Your task to perform on an android device: toggle notification dots Image 0: 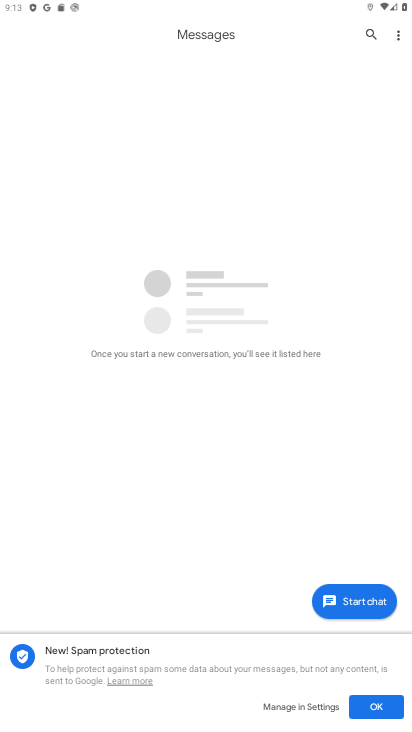
Step 0: press home button
Your task to perform on an android device: toggle notification dots Image 1: 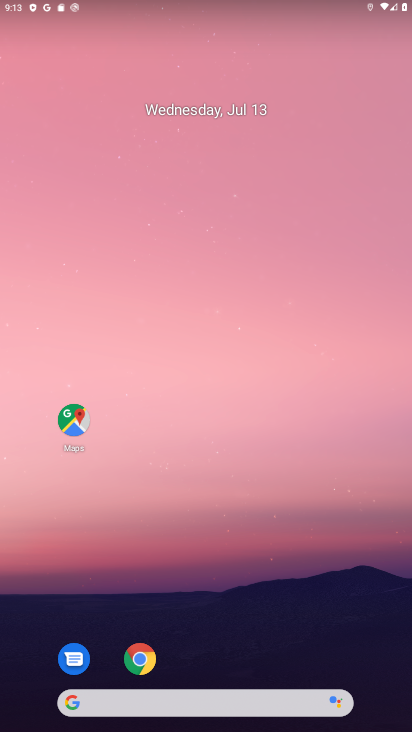
Step 1: click (128, 239)
Your task to perform on an android device: toggle notification dots Image 2: 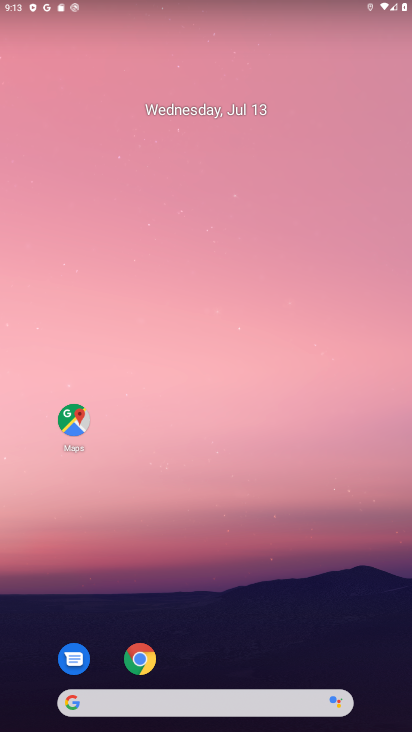
Step 2: drag from (246, 633) to (188, 375)
Your task to perform on an android device: toggle notification dots Image 3: 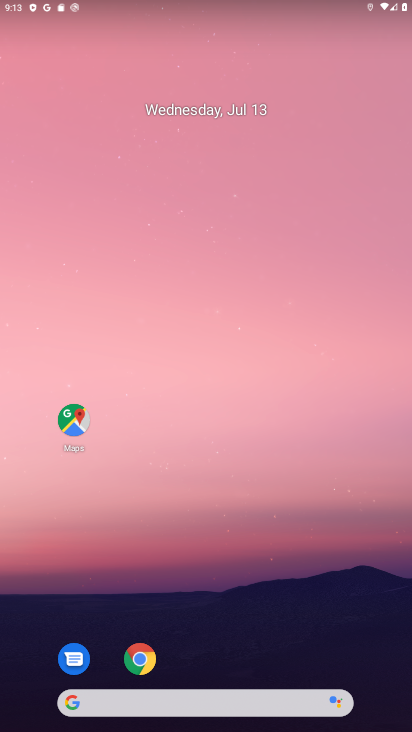
Step 3: drag from (242, 646) to (283, 0)
Your task to perform on an android device: toggle notification dots Image 4: 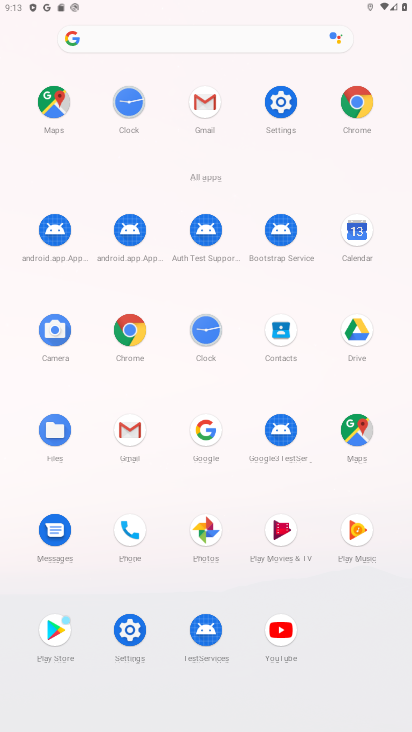
Step 4: click (282, 95)
Your task to perform on an android device: toggle notification dots Image 5: 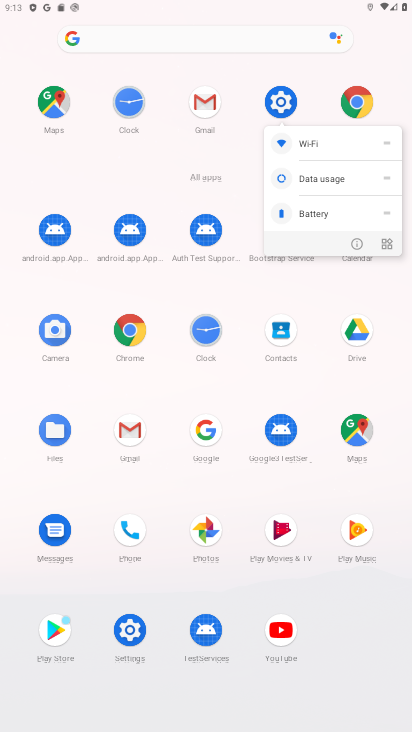
Step 5: click (277, 102)
Your task to perform on an android device: toggle notification dots Image 6: 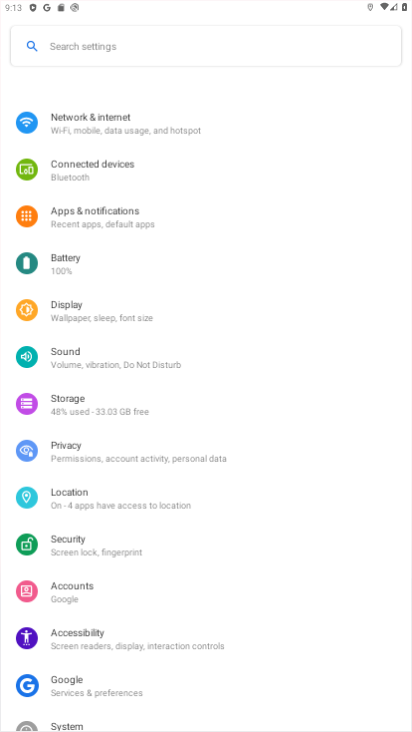
Step 6: click (277, 102)
Your task to perform on an android device: toggle notification dots Image 7: 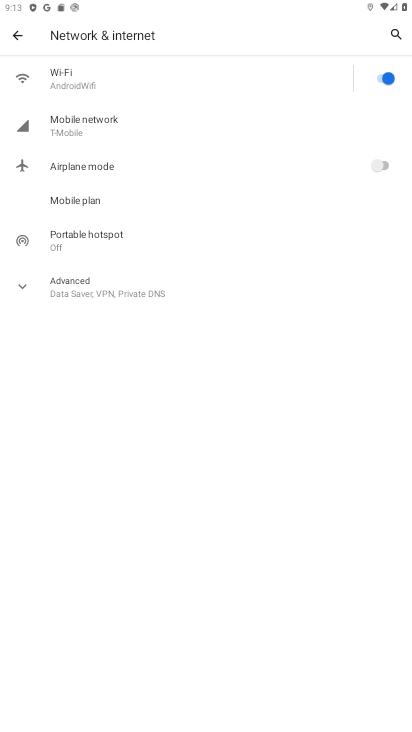
Step 7: click (23, 39)
Your task to perform on an android device: toggle notification dots Image 8: 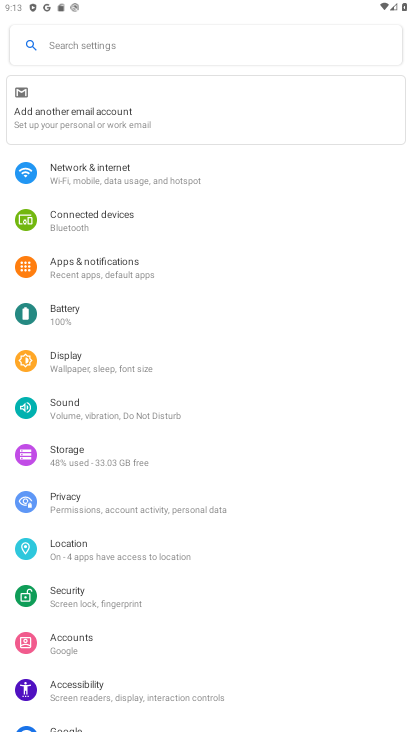
Step 8: click (143, 260)
Your task to perform on an android device: toggle notification dots Image 9: 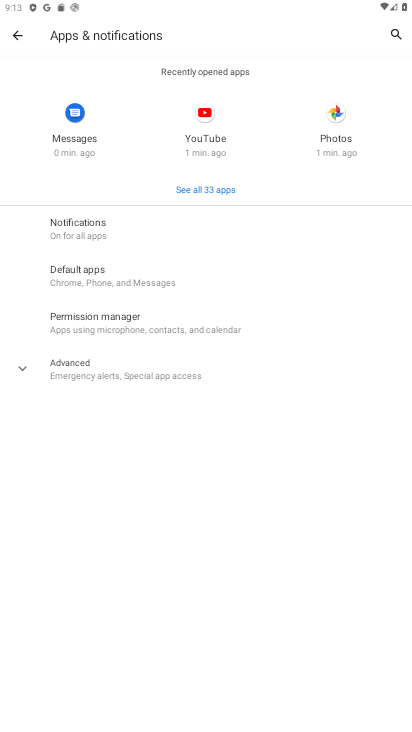
Step 9: click (120, 232)
Your task to perform on an android device: toggle notification dots Image 10: 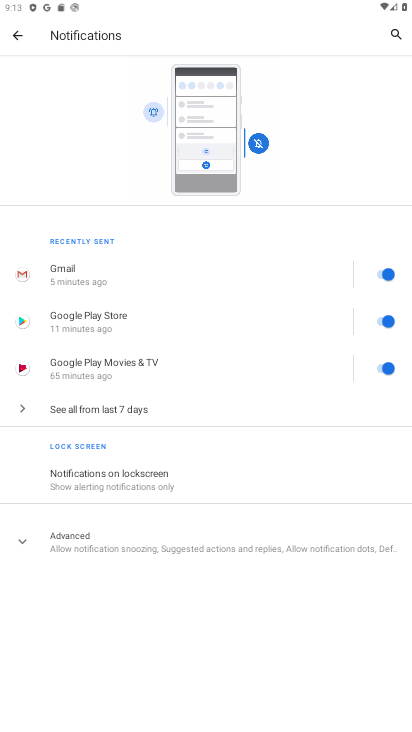
Step 10: click (34, 543)
Your task to perform on an android device: toggle notification dots Image 11: 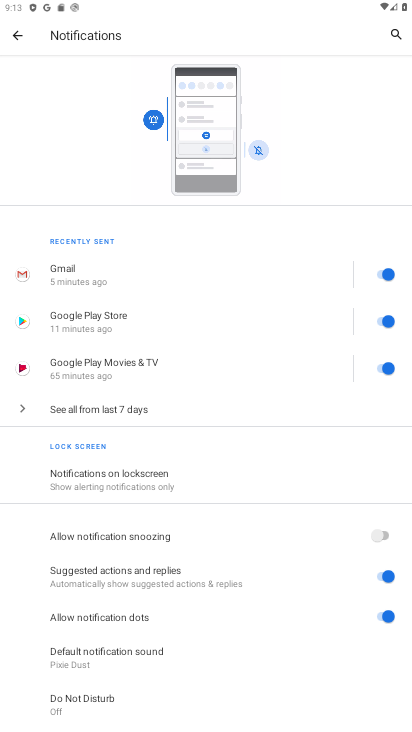
Step 11: click (389, 615)
Your task to perform on an android device: toggle notification dots Image 12: 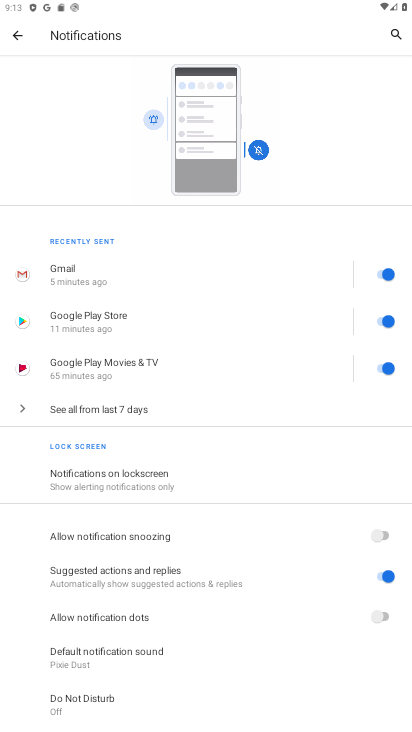
Step 12: task complete